Your task to perform on an android device: remove spam from my inbox in the gmail app Image 0: 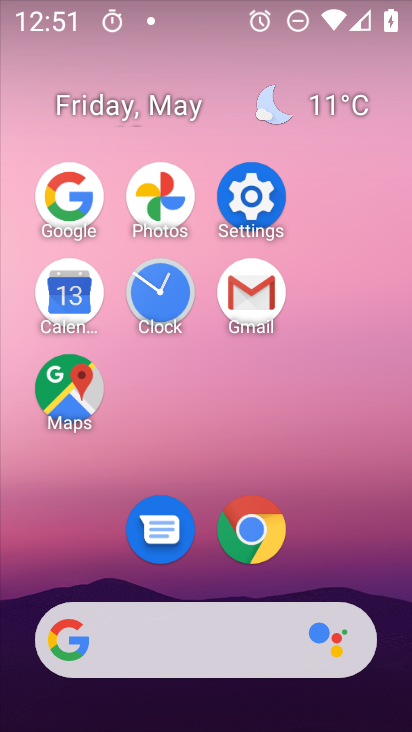
Step 0: click (243, 302)
Your task to perform on an android device: remove spam from my inbox in the gmail app Image 1: 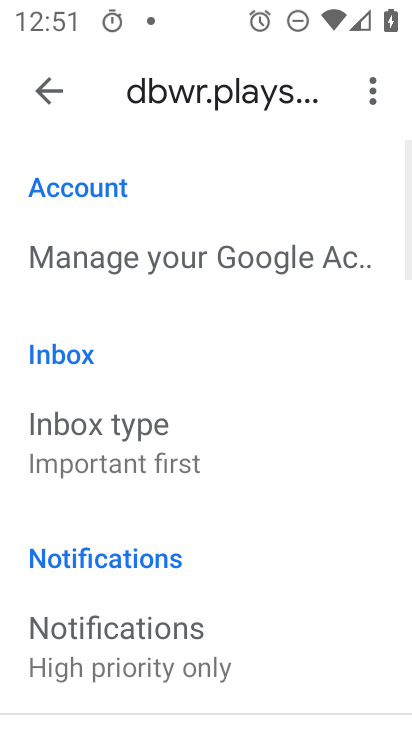
Step 1: drag from (275, 608) to (301, 185)
Your task to perform on an android device: remove spam from my inbox in the gmail app Image 2: 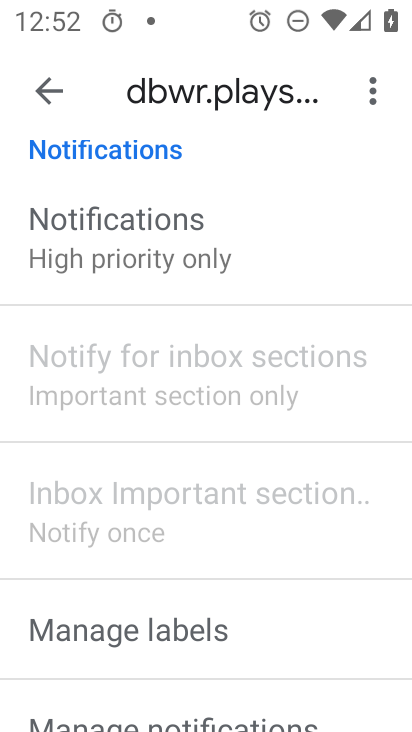
Step 2: drag from (249, 201) to (220, 670)
Your task to perform on an android device: remove spam from my inbox in the gmail app Image 3: 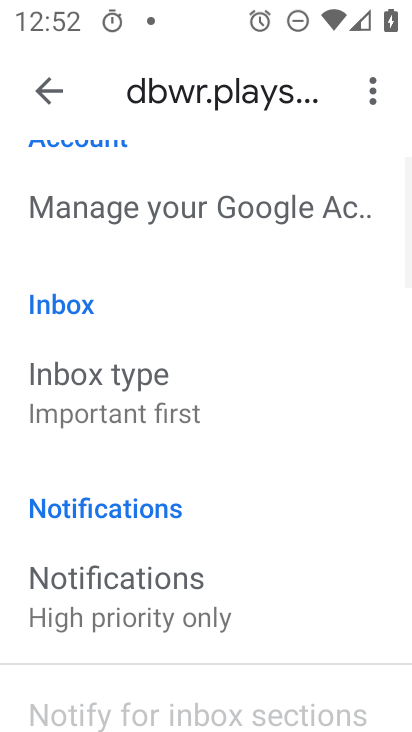
Step 3: click (53, 86)
Your task to perform on an android device: remove spam from my inbox in the gmail app Image 4: 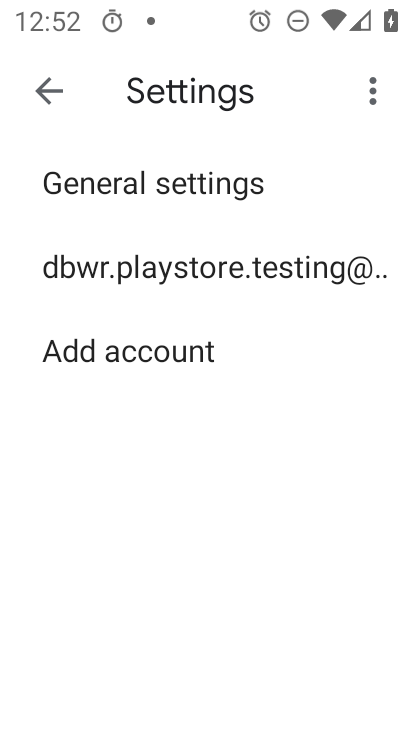
Step 4: click (72, 98)
Your task to perform on an android device: remove spam from my inbox in the gmail app Image 5: 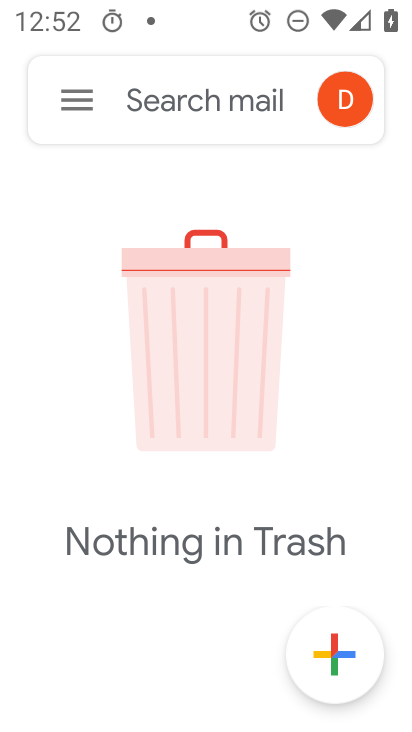
Step 5: click (66, 97)
Your task to perform on an android device: remove spam from my inbox in the gmail app Image 6: 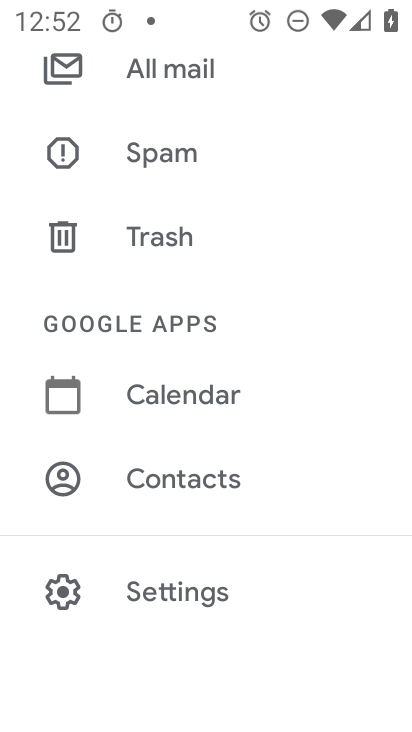
Step 6: click (220, 161)
Your task to perform on an android device: remove spam from my inbox in the gmail app Image 7: 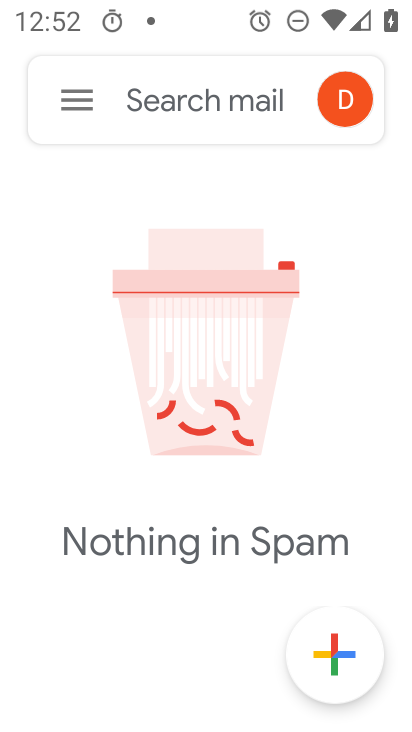
Step 7: task complete